Your task to perform on an android device: See recent photos Image 0: 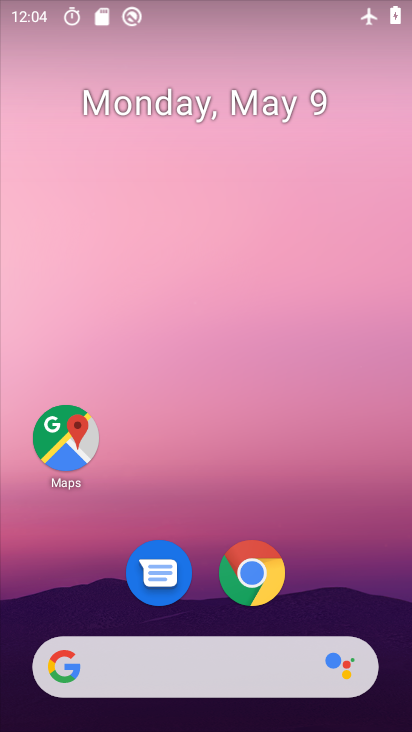
Step 0: drag from (196, 629) to (252, 267)
Your task to perform on an android device: See recent photos Image 1: 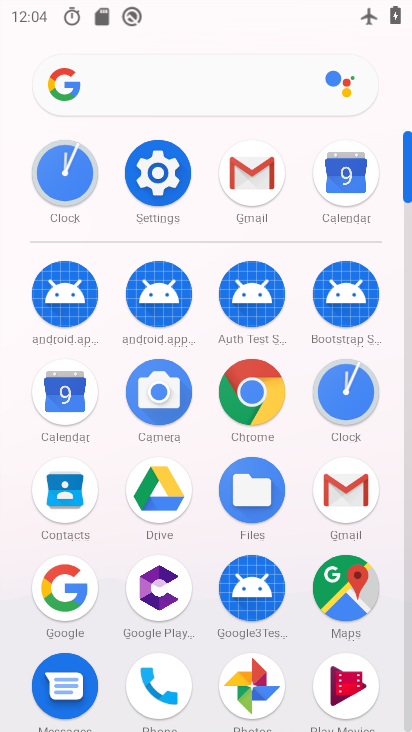
Step 1: click (258, 692)
Your task to perform on an android device: See recent photos Image 2: 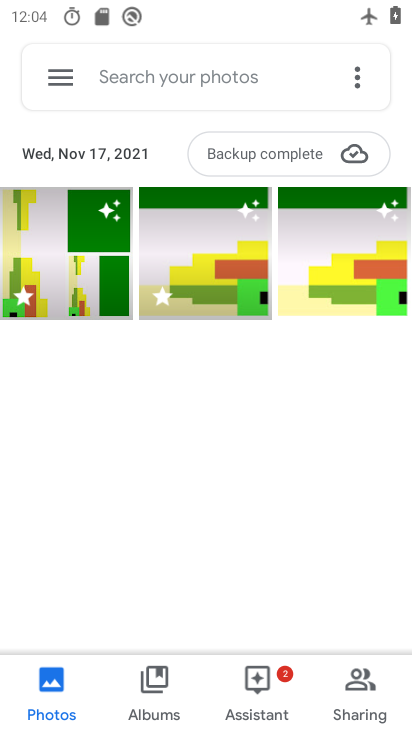
Step 2: click (103, 259)
Your task to perform on an android device: See recent photos Image 3: 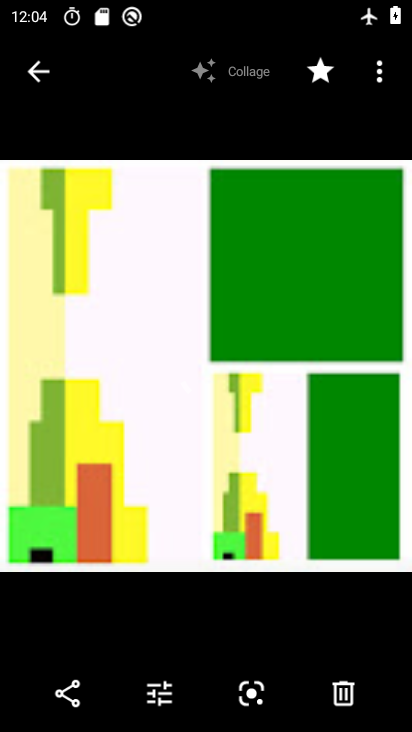
Step 3: task complete